Your task to perform on an android device: set default search engine in the chrome app Image 0: 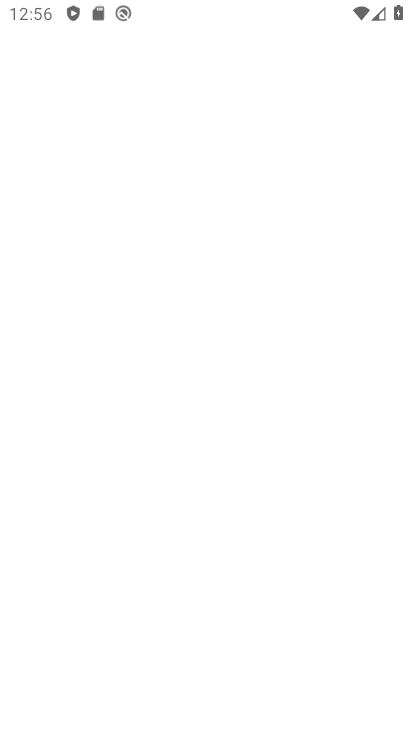
Step 0: press back button
Your task to perform on an android device: set default search engine in the chrome app Image 1: 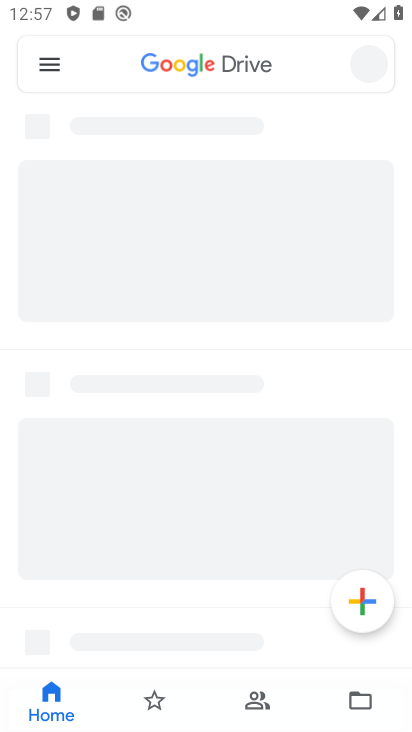
Step 1: press home button
Your task to perform on an android device: set default search engine in the chrome app Image 2: 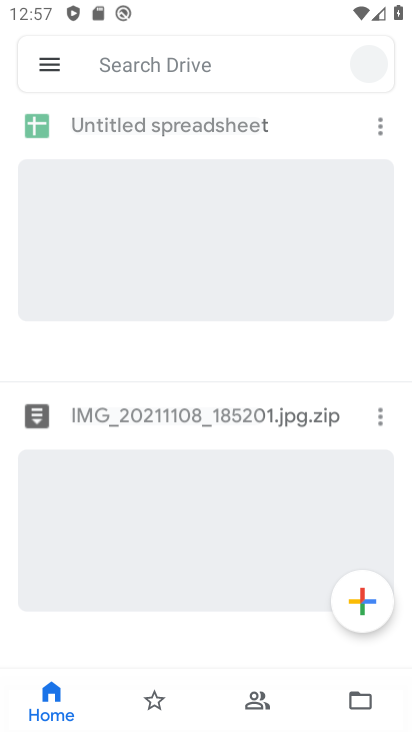
Step 2: press back button
Your task to perform on an android device: set default search engine in the chrome app Image 3: 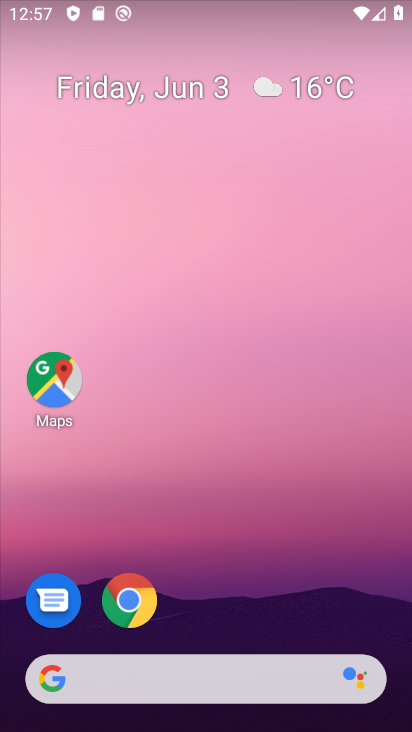
Step 3: press home button
Your task to perform on an android device: set default search engine in the chrome app Image 4: 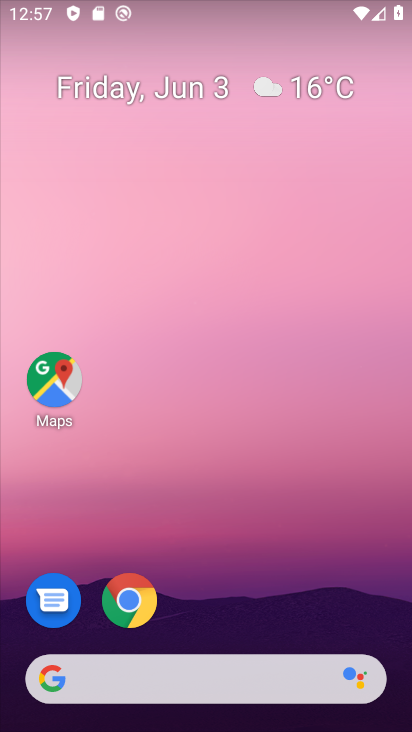
Step 4: drag from (237, 512) to (223, 34)
Your task to perform on an android device: set default search engine in the chrome app Image 5: 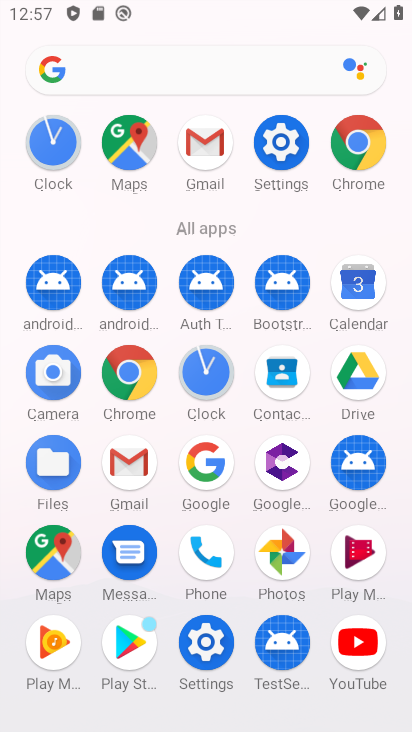
Step 5: drag from (6, 509) to (14, 172)
Your task to perform on an android device: set default search engine in the chrome app Image 6: 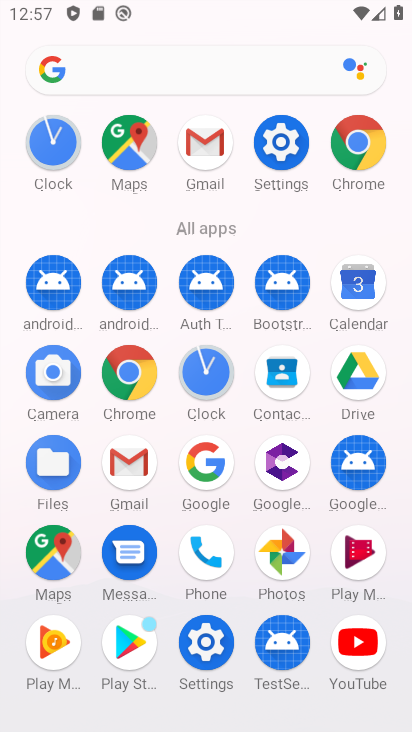
Step 6: click (129, 368)
Your task to perform on an android device: set default search engine in the chrome app Image 7: 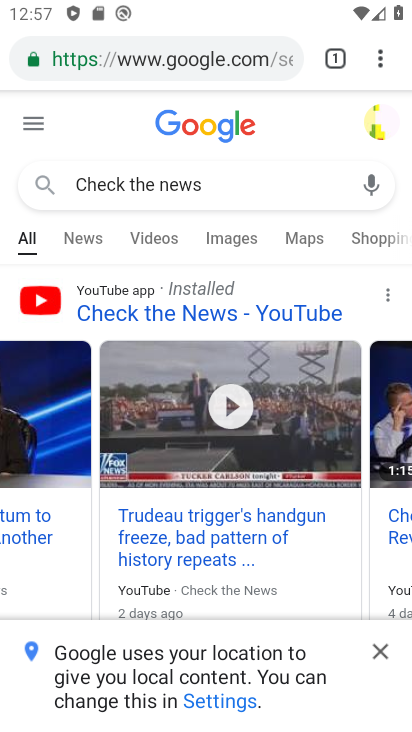
Step 7: drag from (380, 60) to (188, 615)
Your task to perform on an android device: set default search engine in the chrome app Image 8: 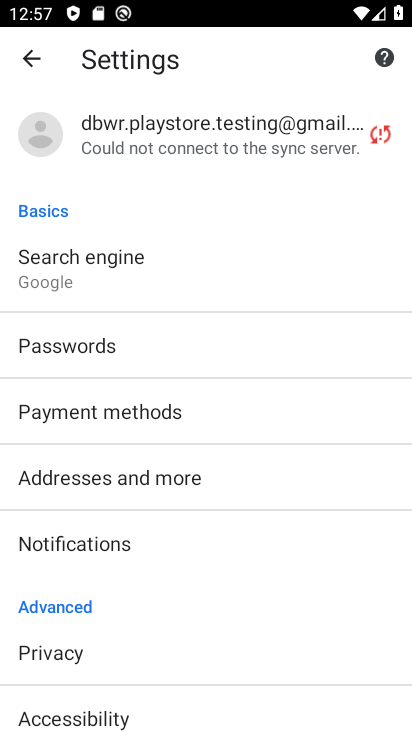
Step 8: click (118, 272)
Your task to perform on an android device: set default search engine in the chrome app Image 9: 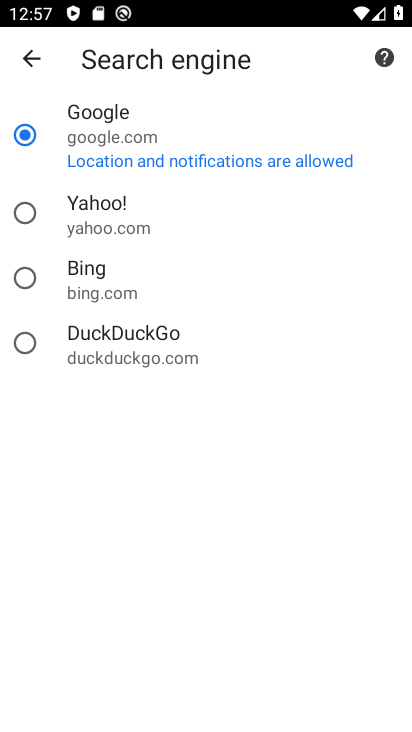
Step 9: click (110, 145)
Your task to perform on an android device: set default search engine in the chrome app Image 10: 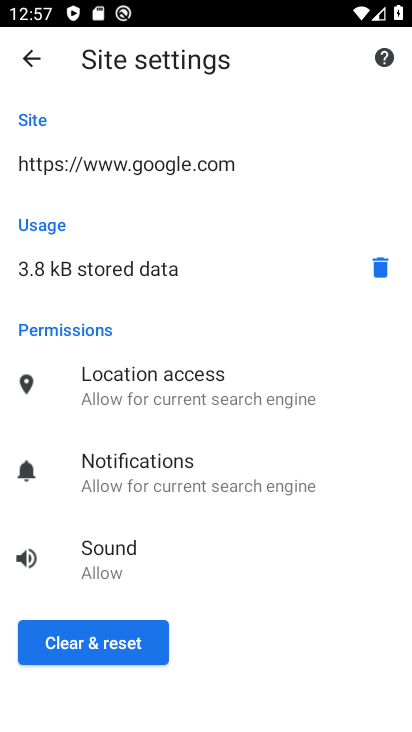
Step 10: task complete